Your task to perform on an android device: check android version Image 0: 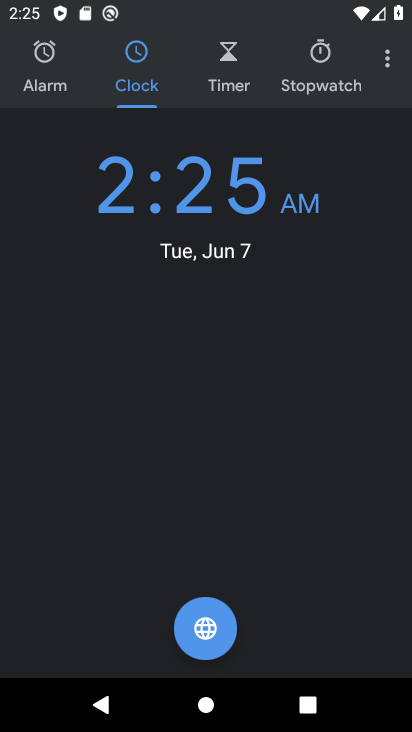
Step 0: press home button
Your task to perform on an android device: check android version Image 1: 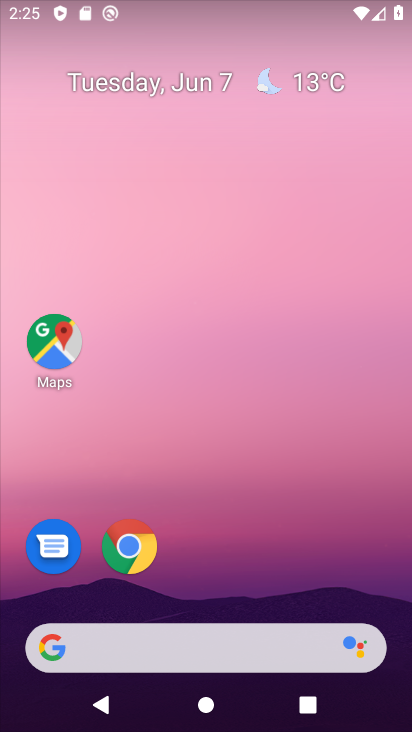
Step 1: drag from (232, 562) to (216, 55)
Your task to perform on an android device: check android version Image 2: 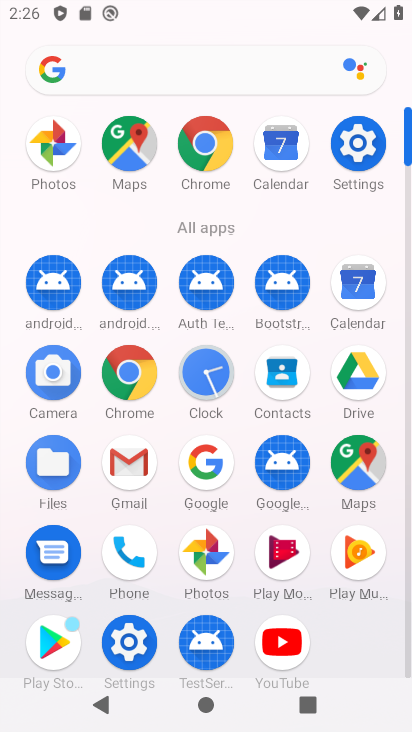
Step 2: click (368, 150)
Your task to perform on an android device: check android version Image 3: 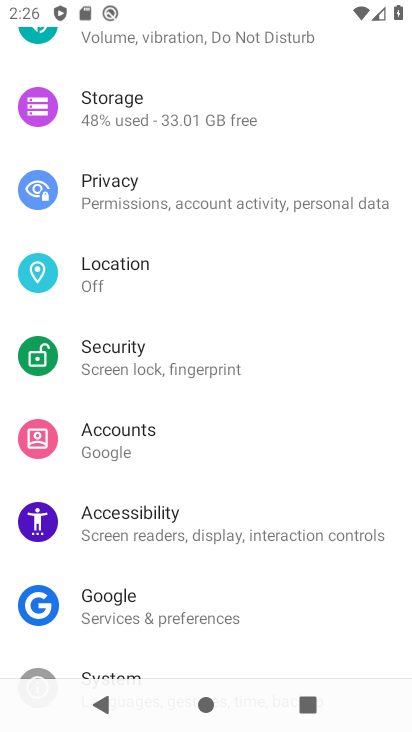
Step 3: drag from (285, 299) to (287, 429)
Your task to perform on an android device: check android version Image 4: 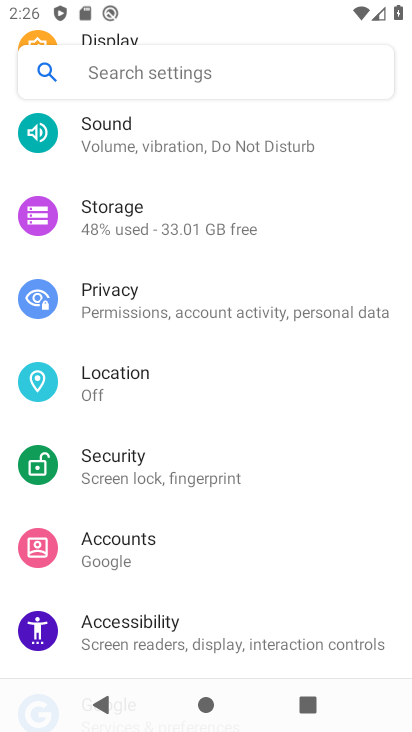
Step 4: drag from (281, 199) to (313, 416)
Your task to perform on an android device: check android version Image 5: 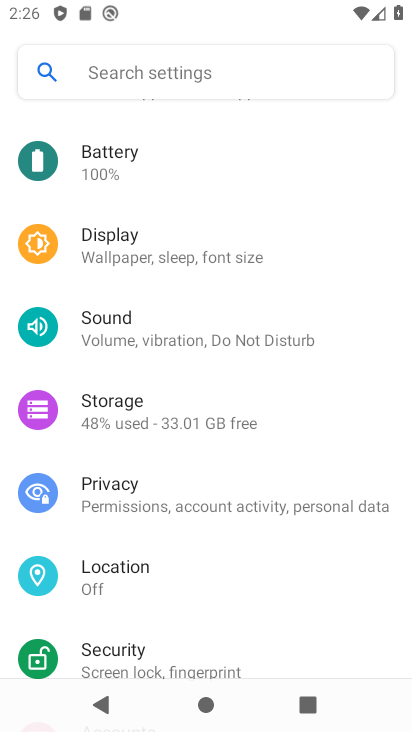
Step 5: drag from (296, 182) to (300, 397)
Your task to perform on an android device: check android version Image 6: 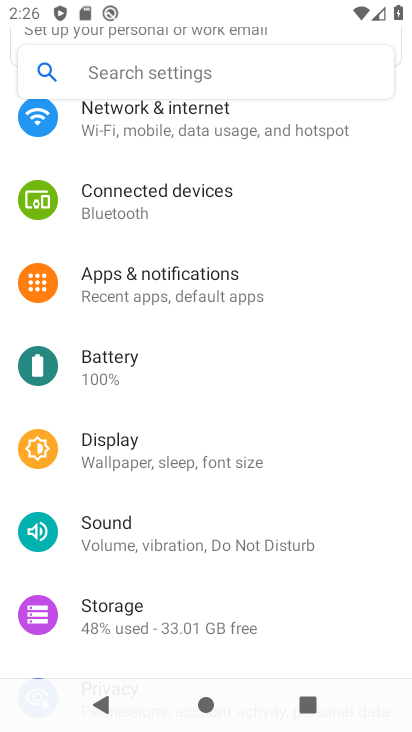
Step 6: drag from (294, 204) to (294, 393)
Your task to perform on an android device: check android version Image 7: 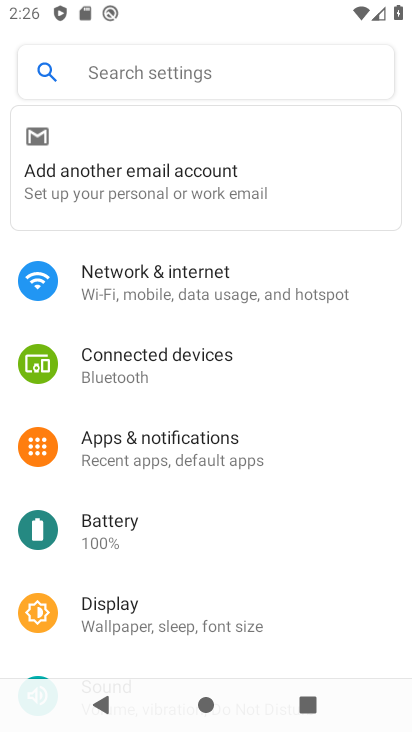
Step 7: drag from (291, 398) to (289, 268)
Your task to perform on an android device: check android version Image 8: 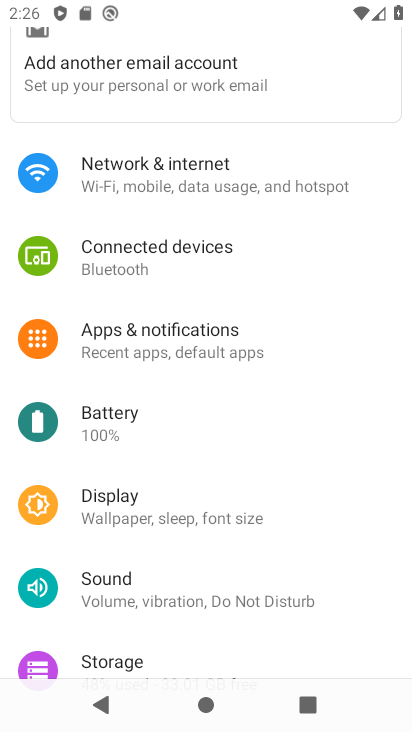
Step 8: drag from (305, 429) to (306, 310)
Your task to perform on an android device: check android version Image 9: 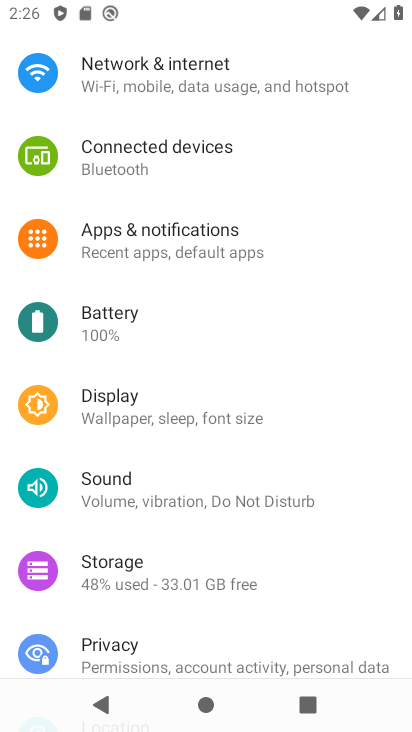
Step 9: drag from (345, 561) to (350, 362)
Your task to perform on an android device: check android version Image 10: 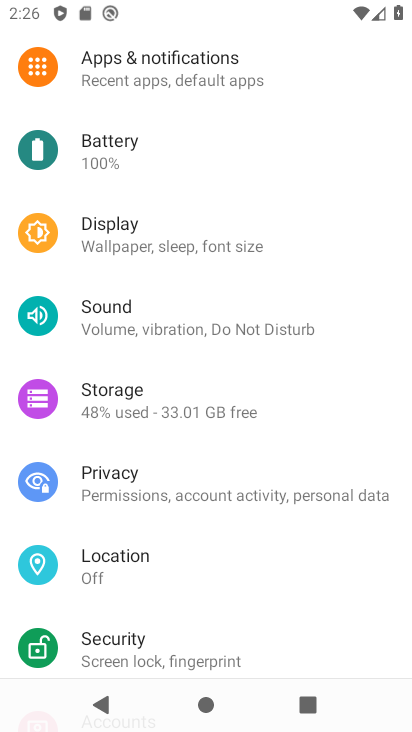
Step 10: drag from (321, 511) to (317, 432)
Your task to perform on an android device: check android version Image 11: 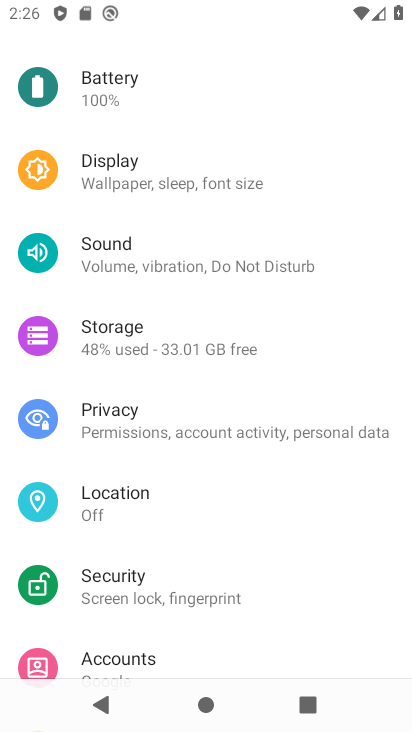
Step 11: drag from (297, 572) to (280, 380)
Your task to perform on an android device: check android version Image 12: 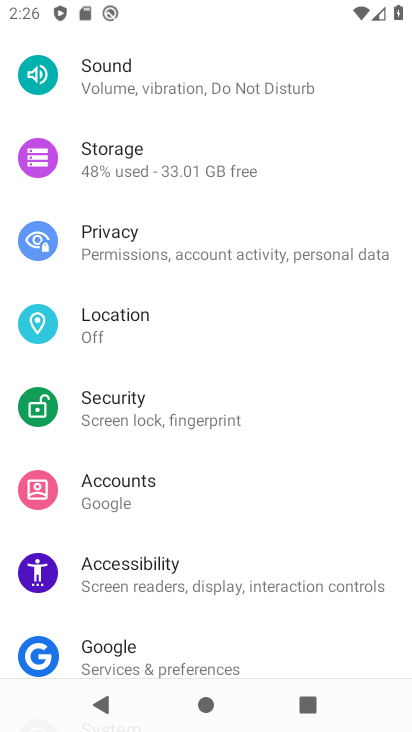
Step 12: drag from (288, 534) to (302, 285)
Your task to perform on an android device: check android version Image 13: 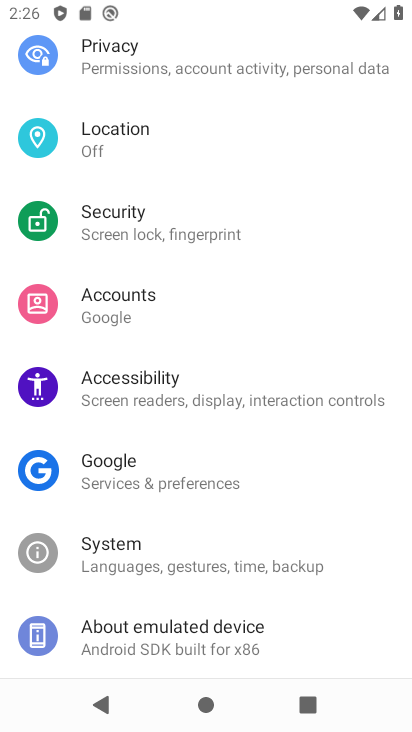
Step 13: drag from (273, 527) to (275, 355)
Your task to perform on an android device: check android version Image 14: 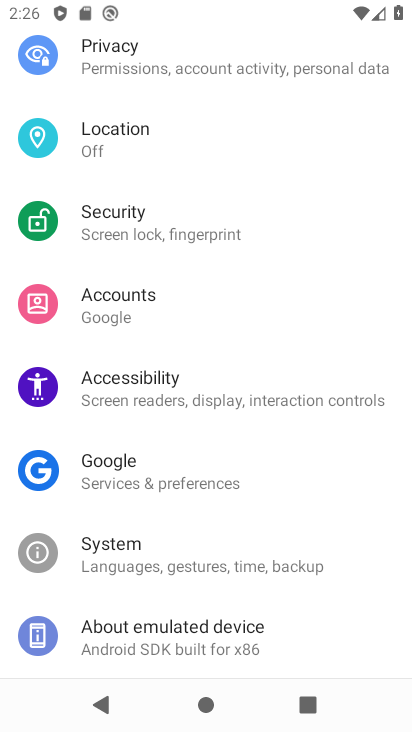
Step 14: click (190, 569)
Your task to perform on an android device: check android version Image 15: 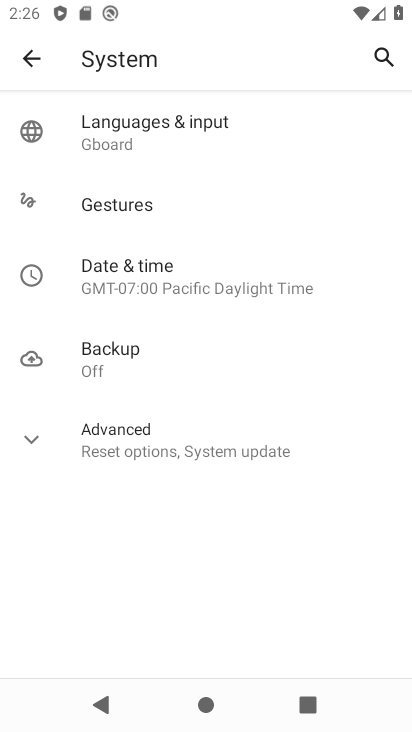
Step 15: click (165, 450)
Your task to perform on an android device: check android version Image 16: 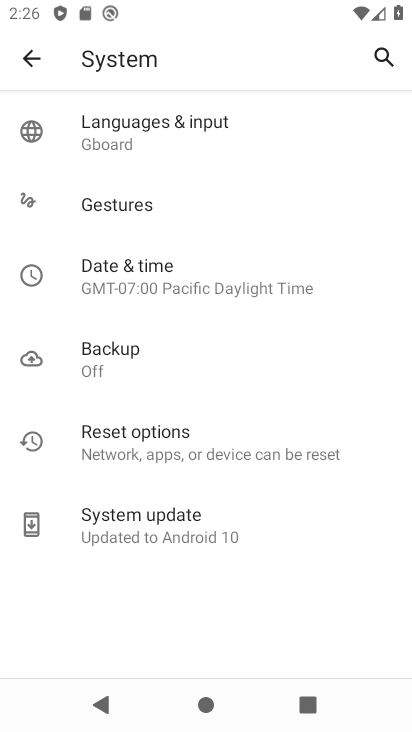
Step 16: click (178, 529)
Your task to perform on an android device: check android version Image 17: 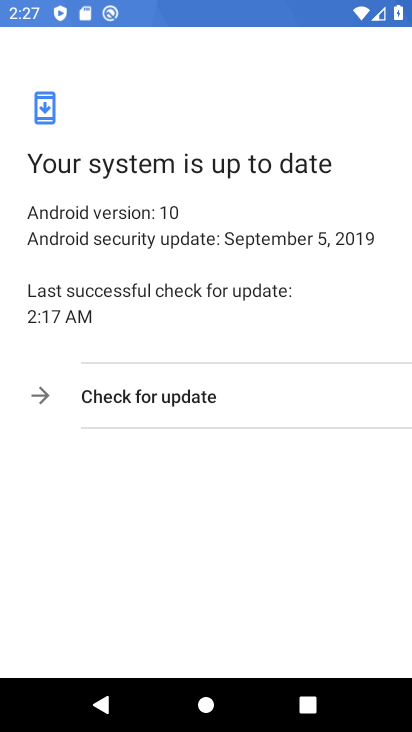
Step 17: task complete